Your task to perform on an android device: turn on the 12-hour format for clock Image 0: 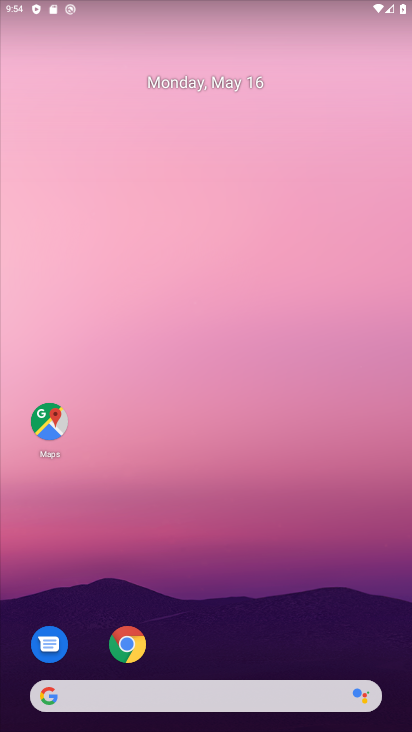
Step 0: drag from (168, 616) to (176, 236)
Your task to perform on an android device: turn on the 12-hour format for clock Image 1: 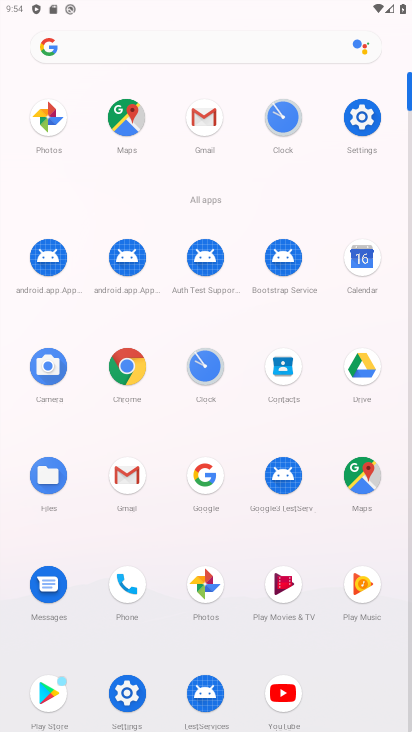
Step 1: click (282, 115)
Your task to perform on an android device: turn on the 12-hour format for clock Image 2: 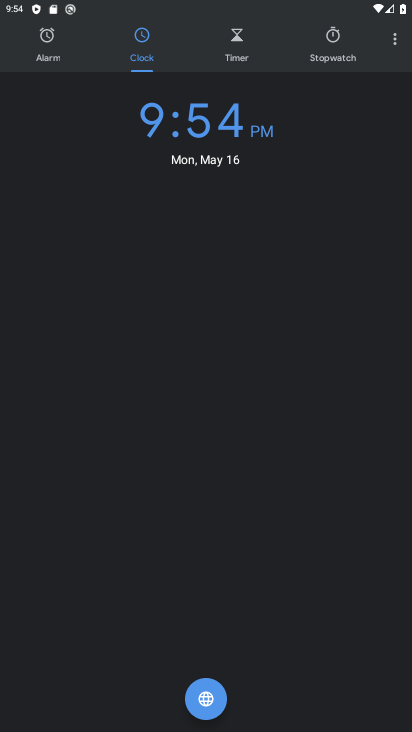
Step 2: click (391, 46)
Your task to perform on an android device: turn on the 12-hour format for clock Image 3: 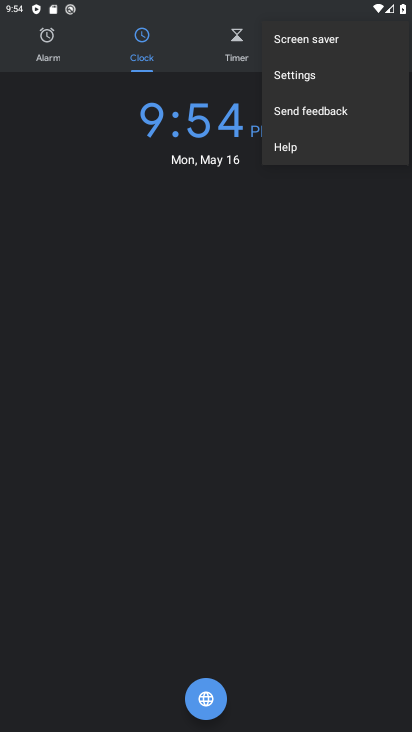
Step 3: click (287, 79)
Your task to perform on an android device: turn on the 12-hour format for clock Image 4: 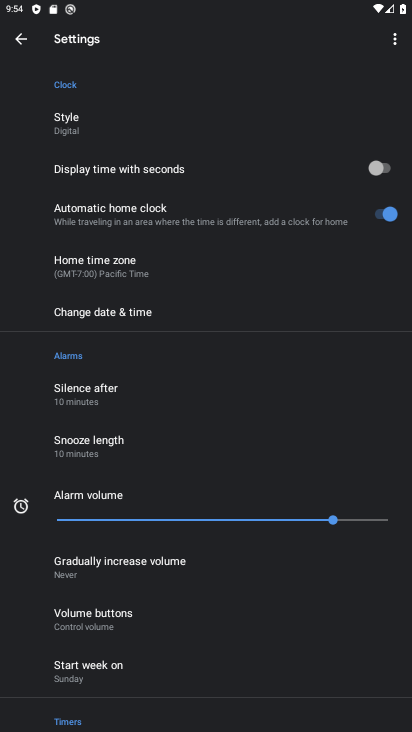
Step 4: click (104, 312)
Your task to perform on an android device: turn on the 12-hour format for clock Image 5: 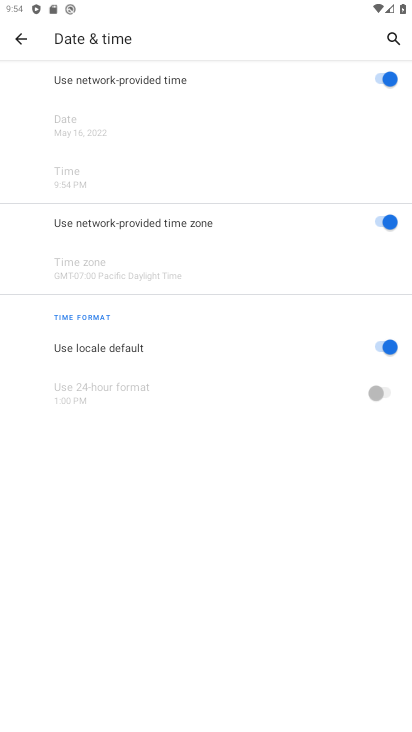
Step 5: task complete